Your task to perform on an android device: toggle airplane mode Image 0: 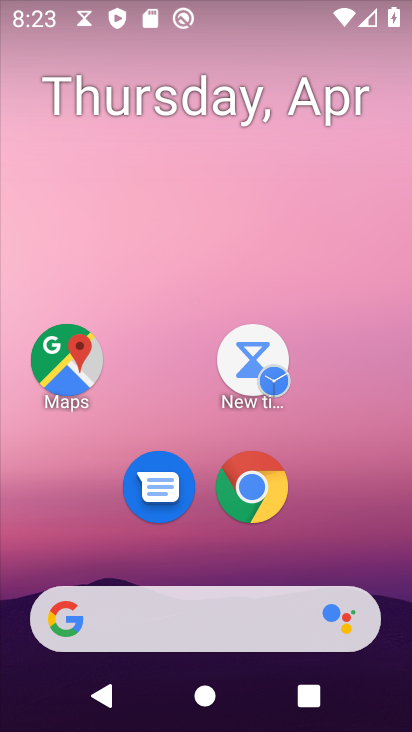
Step 0: drag from (315, 516) to (312, 98)
Your task to perform on an android device: toggle airplane mode Image 1: 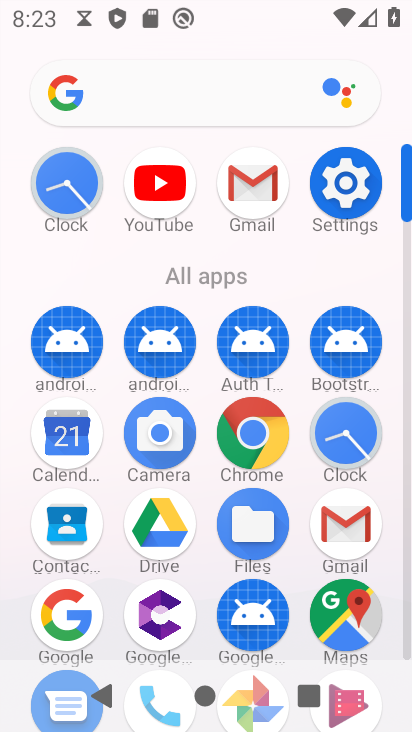
Step 1: click (354, 190)
Your task to perform on an android device: toggle airplane mode Image 2: 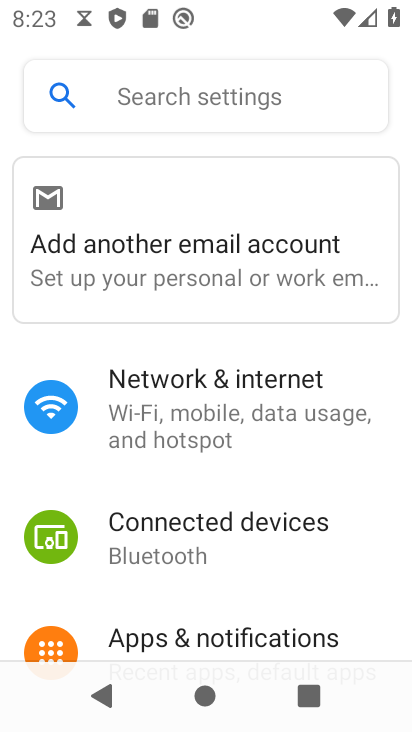
Step 2: click (191, 430)
Your task to perform on an android device: toggle airplane mode Image 3: 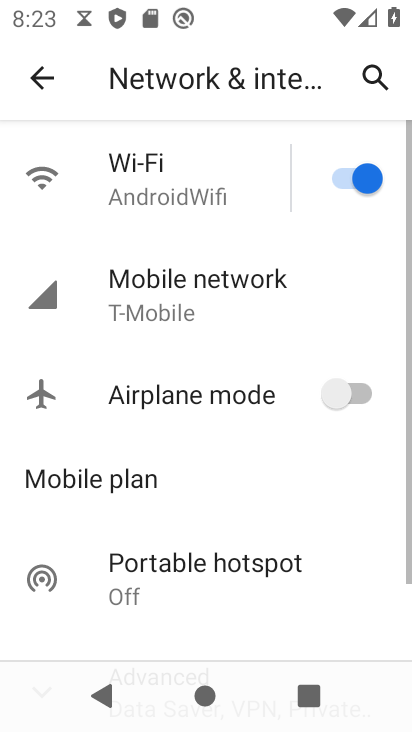
Step 3: click (342, 393)
Your task to perform on an android device: toggle airplane mode Image 4: 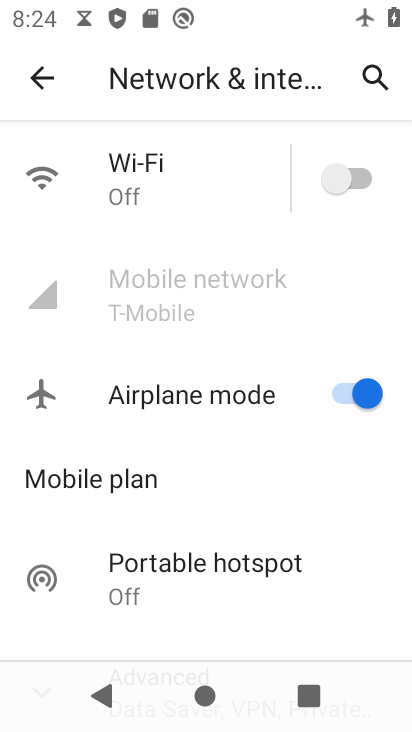
Step 4: task complete